Your task to perform on an android device: install app "Lyft - Rideshare, Bikes, Scooters & Transit" Image 0: 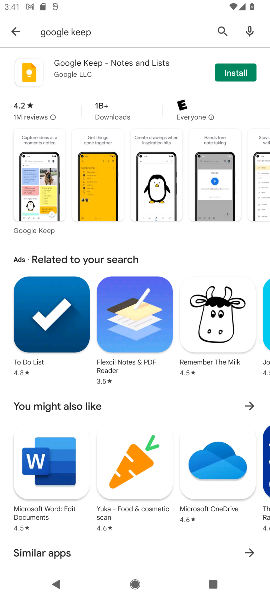
Step 0: click (218, 31)
Your task to perform on an android device: install app "Lyft - Rideshare, Bikes, Scooters & Transit" Image 1: 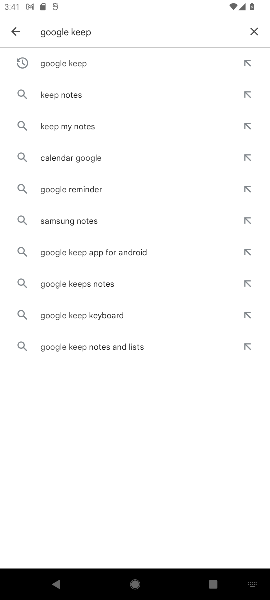
Step 1: click (252, 26)
Your task to perform on an android device: install app "Lyft - Rideshare, Bikes, Scooters & Transit" Image 2: 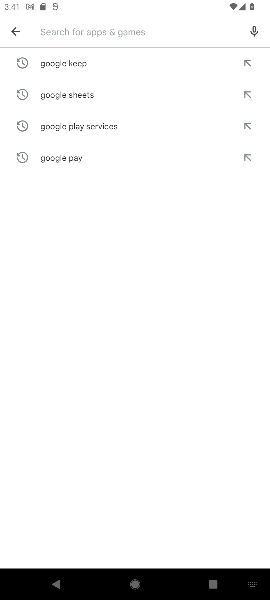
Step 2: type "lyft"
Your task to perform on an android device: install app "Lyft - Rideshare, Bikes, Scooters & Transit" Image 3: 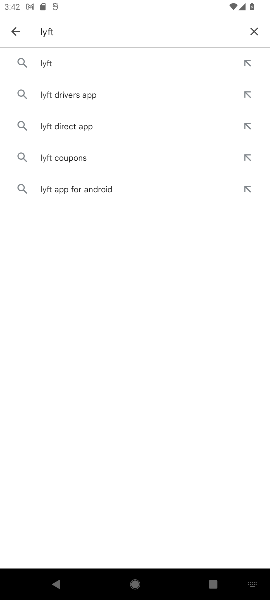
Step 3: click (55, 60)
Your task to perform on an android device: install app "Lyft - Rideshare, Bikes, Scooters & Transit" Image 4: 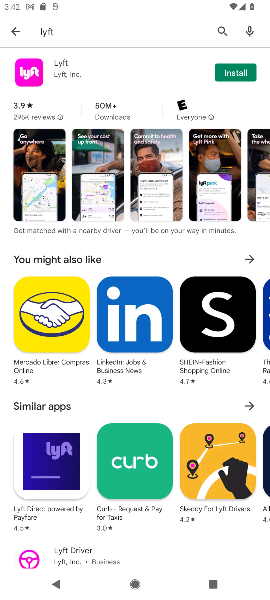
Step 4: click (233, 75)
Your task to perform on an android device: install app "Lyft - Rideshare, Bikes, Scooters & Transit" Image 5: 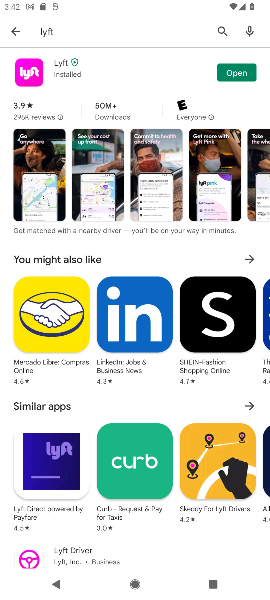
Step 5: task complete